Your task to perform on an android device: Empty the shopping cart on ebay. Add "logitech g502" to the cart on ebay Image 0: 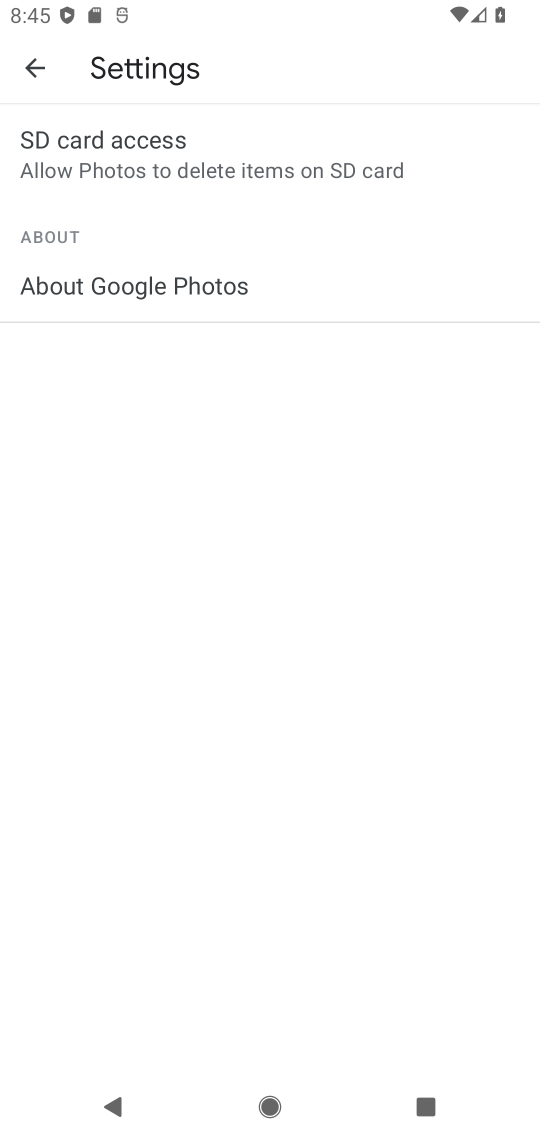
Step 0: press home button
Your task to perform on an android device: Empty the shopping cart on ebay. Add "logitech g502" to the cart on ebay Image 1: 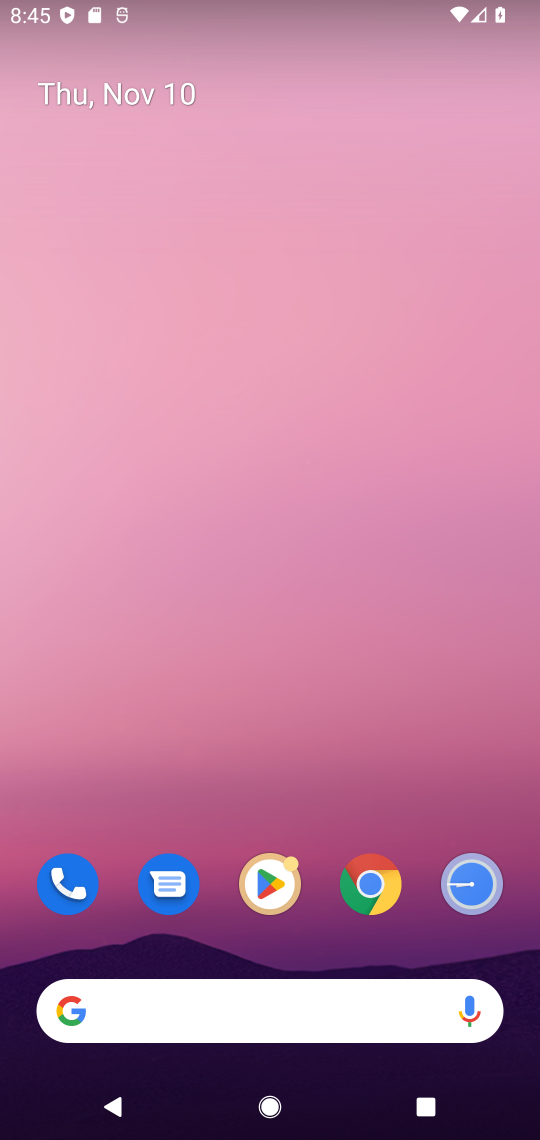
Step 1: click (236, 1021)
Your task to perform on an android device: Empty the shopping cart on ebay. Add "logitech g502" to the cart on ebay Image 2: 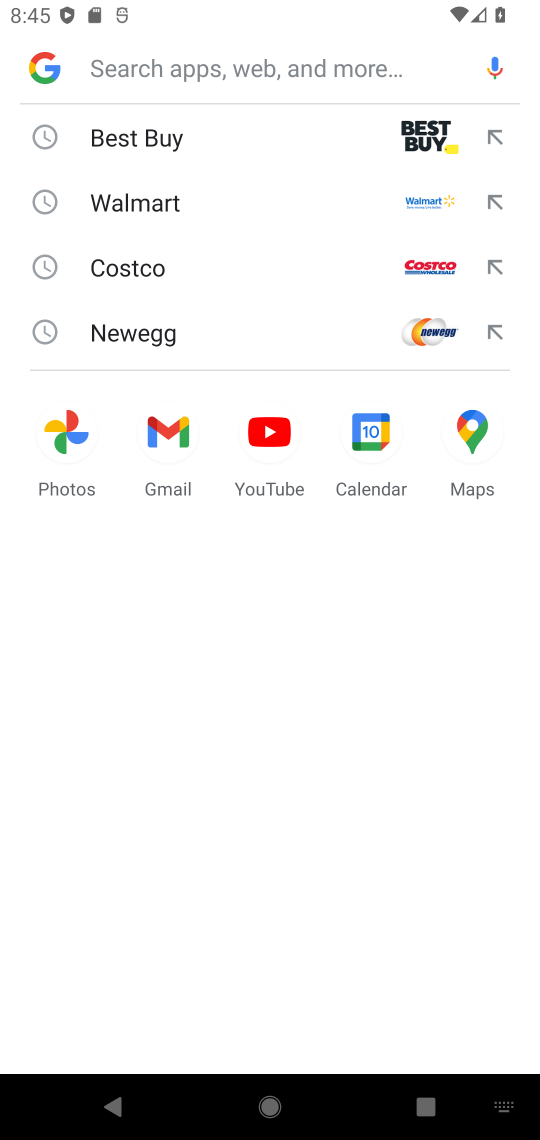
Step 2: type "ebay"
Your task to perform on an android device: Empty the shopping cart on ebay. Add "logitech g502" to the cart on ebay Image 3: 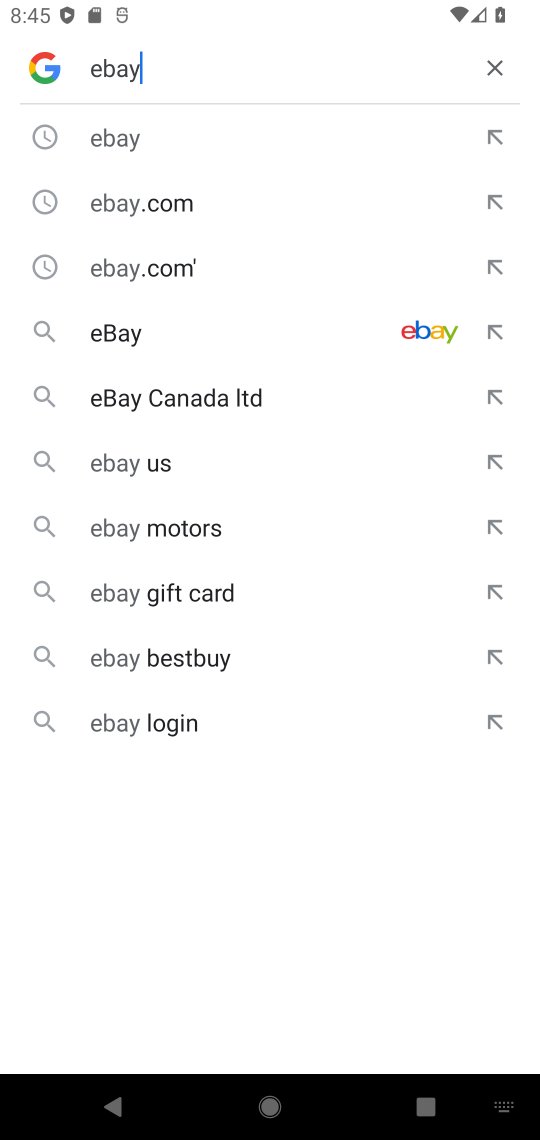
Step 3: click (283, 331)
Your task to perform on an android device: Empty the shopping cart on ebay. Add "logitech g502" to the cart on ebay Image 4: 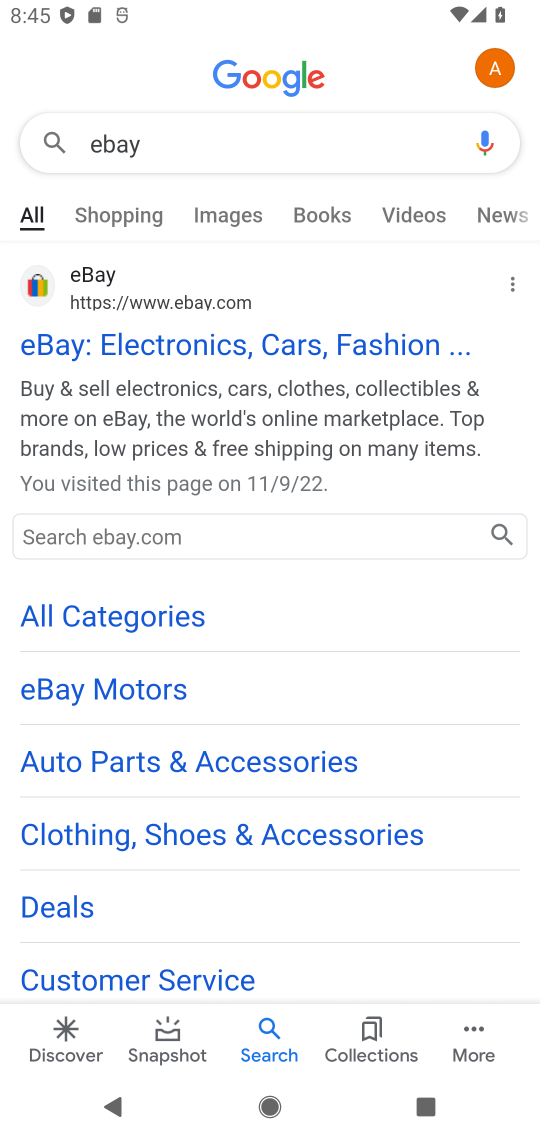
Step 4: click (98, 270)
Your task to perform on an android device: Empty the shopping cart on ebay. Add "logitech g502" to the cart on ebay Image 5: 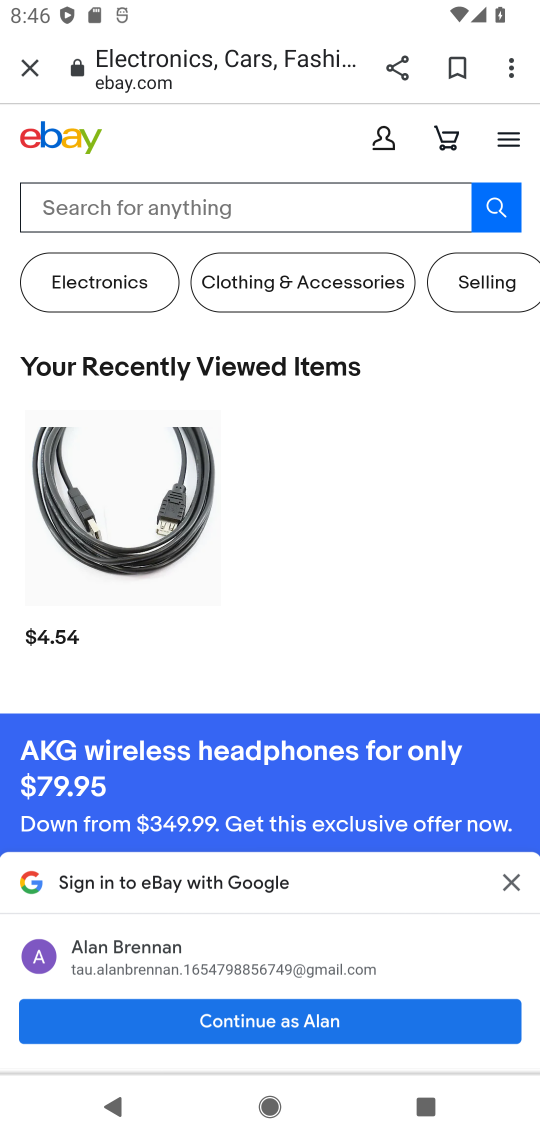
Step 5: click (514, 881)
Your task to perform on an android device: Empty the shopping cart on ebay. Add "logitech g502" to the cart on ebay Image 6: 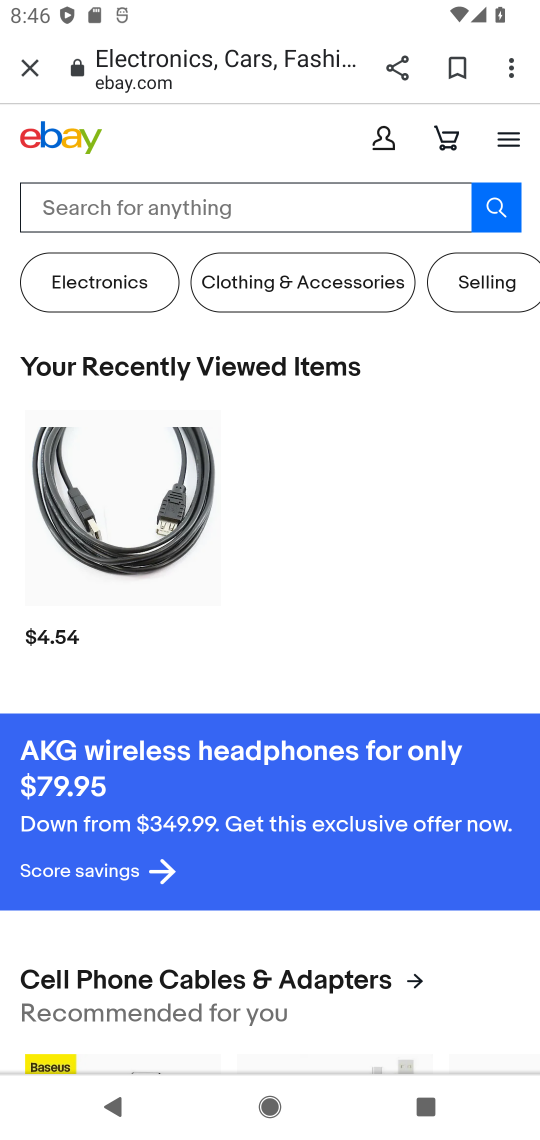
Step 6: drag from (385, 856) to (298, 357)
Your task to perform on an android device: Empty the shopping cart on ebay. Add "logitech g502" to the cart on ebay Image 7: 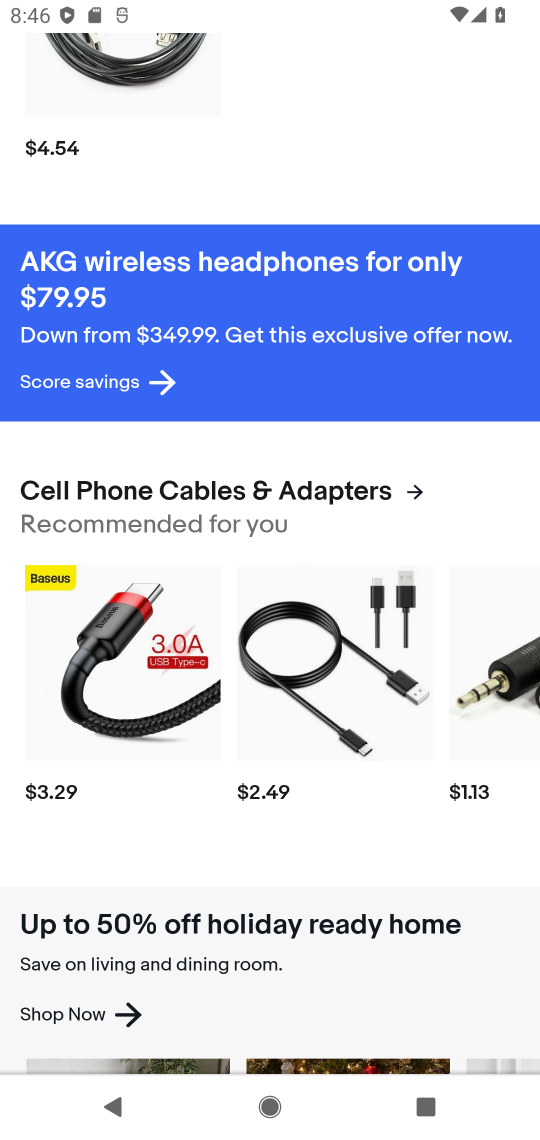
Step 7: drag from (326, 472) to (491, 1113)
Your task to perform on an android device: Empty the shopping cart on ebay. Add "logitech g502" to the cart on ebay Image 8: 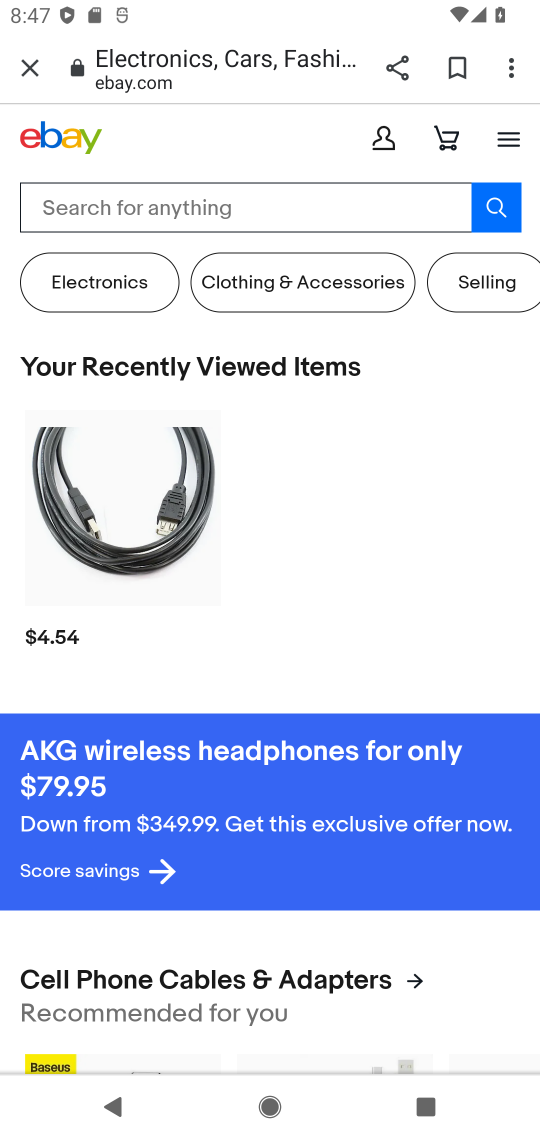
Step 8: click (315, 194)
Your task to perform on an android device: Empty the shopping cart on ebay. Add "logitech g502" to the cart on ebay Image 9: 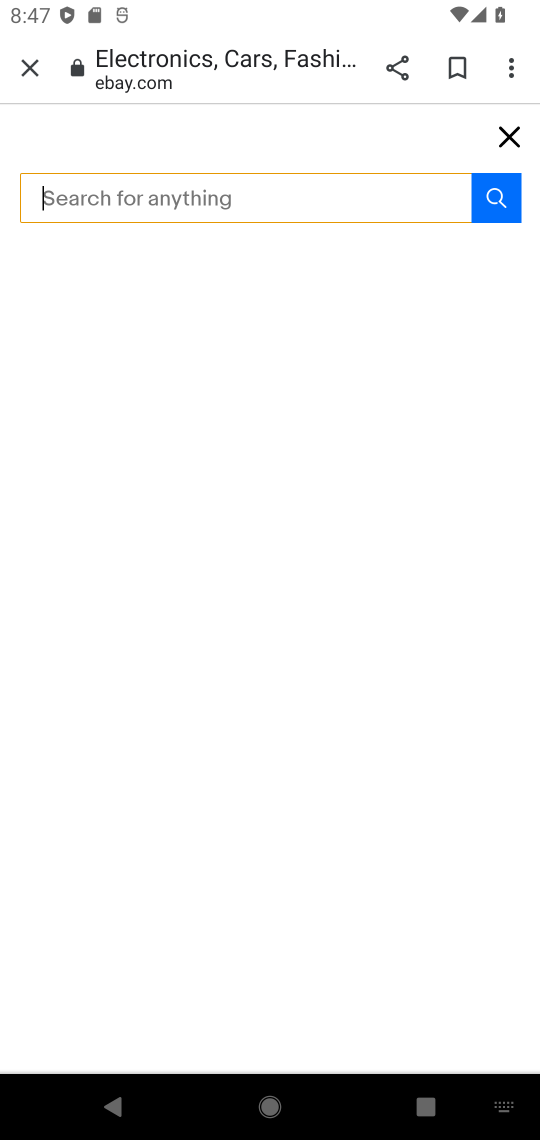
Step 9: type "logitech g502"
Your task to perform on an android device: Empty the shopping cart on ebay. Add "logitech g502" to the cart on ebay Image 10: 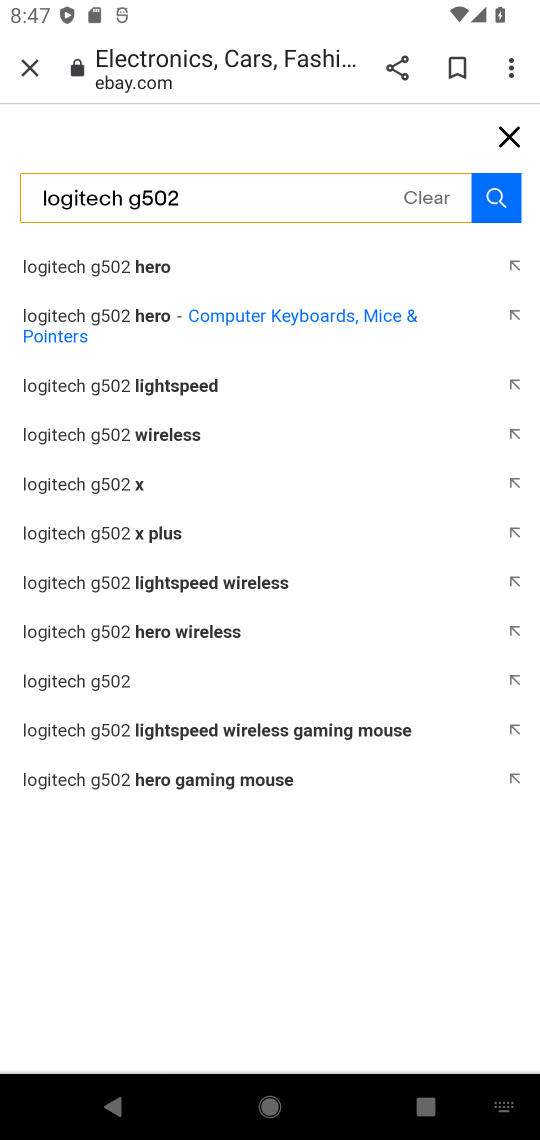
Step 10: click (119, 265)
Your task to perform on an android device: Empty the shopping cart on ebay. Add "logitech g502" to the cart on ebay Image 11: 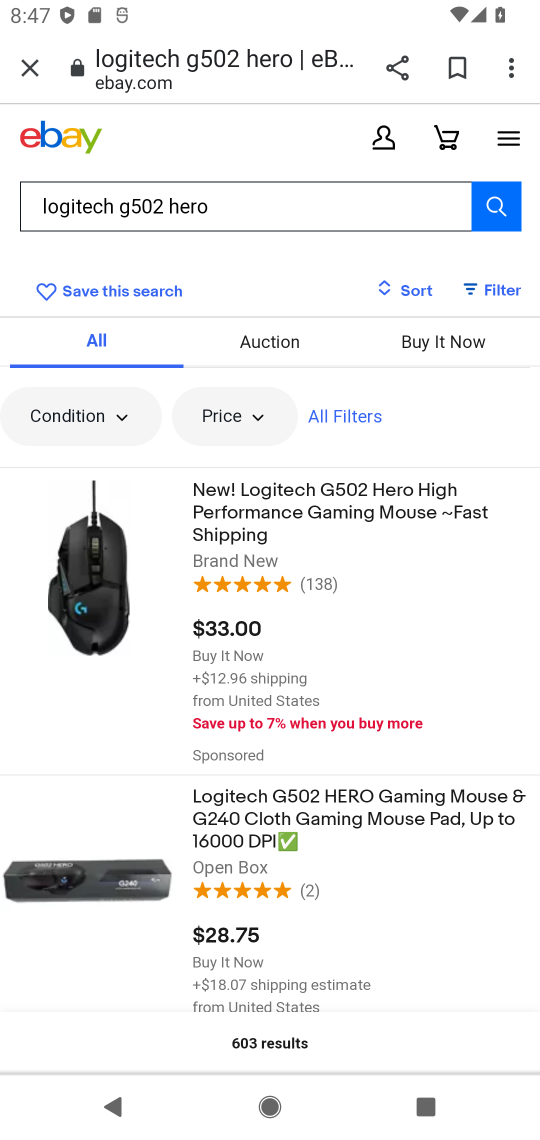
Step 11: click (214, 506)
Your task to perform on an android device: Empty the shopping cart on ebay. Add "logitech g502" to the cart on ebay Image 12: 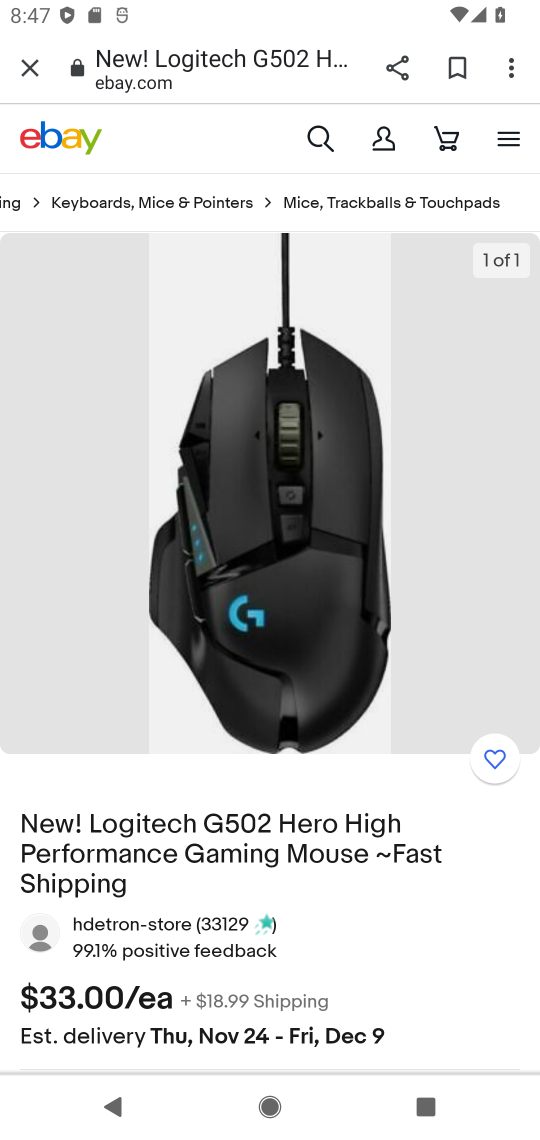
Step 12: drag from (183, 859) to (183, 451)
Your task to perform on an android device: Empty the shopping cart on ebay. Add "logitech g502" to the cart on ebay Image 13: 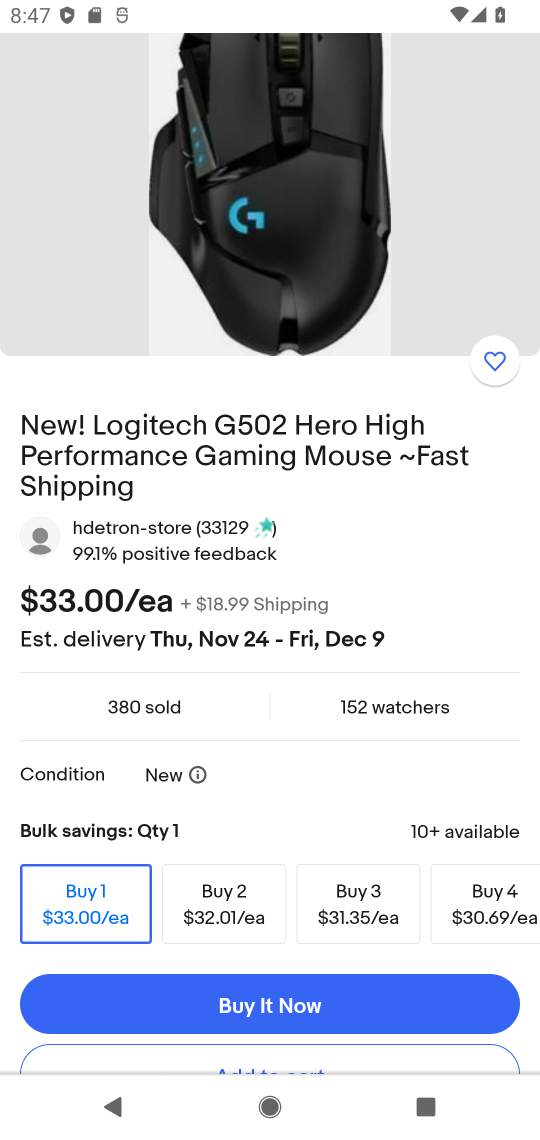
Step 13: click (248, 1010)
Your task to perform on an android device: Empty the shopping cart on ebay. Add "logitech g502" to the cart on ebay Image 14: 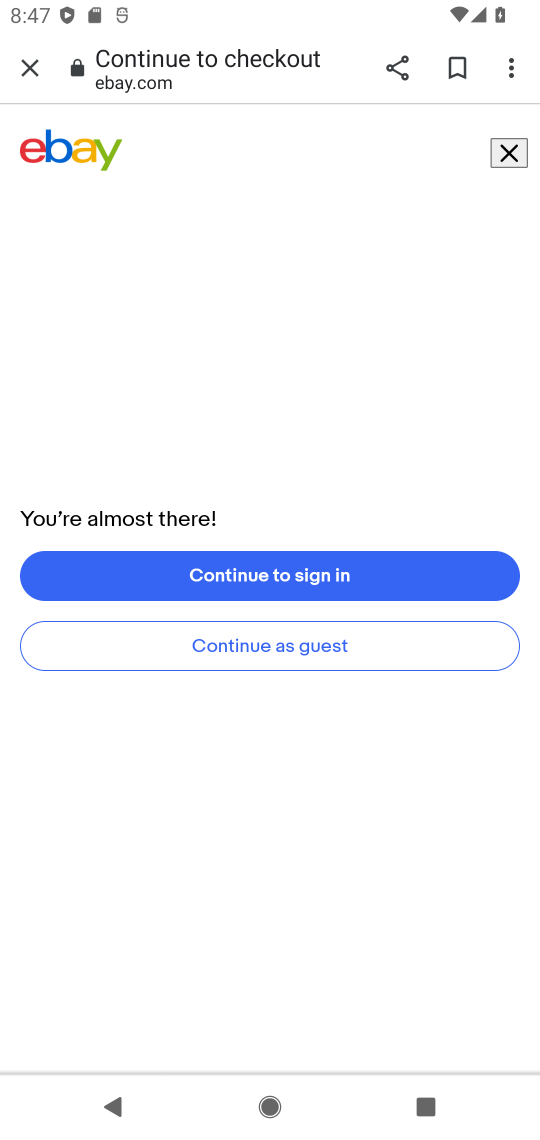
Step 14: task complete